Your task to perform on an android device: turn on improve location accuracy Image 0: 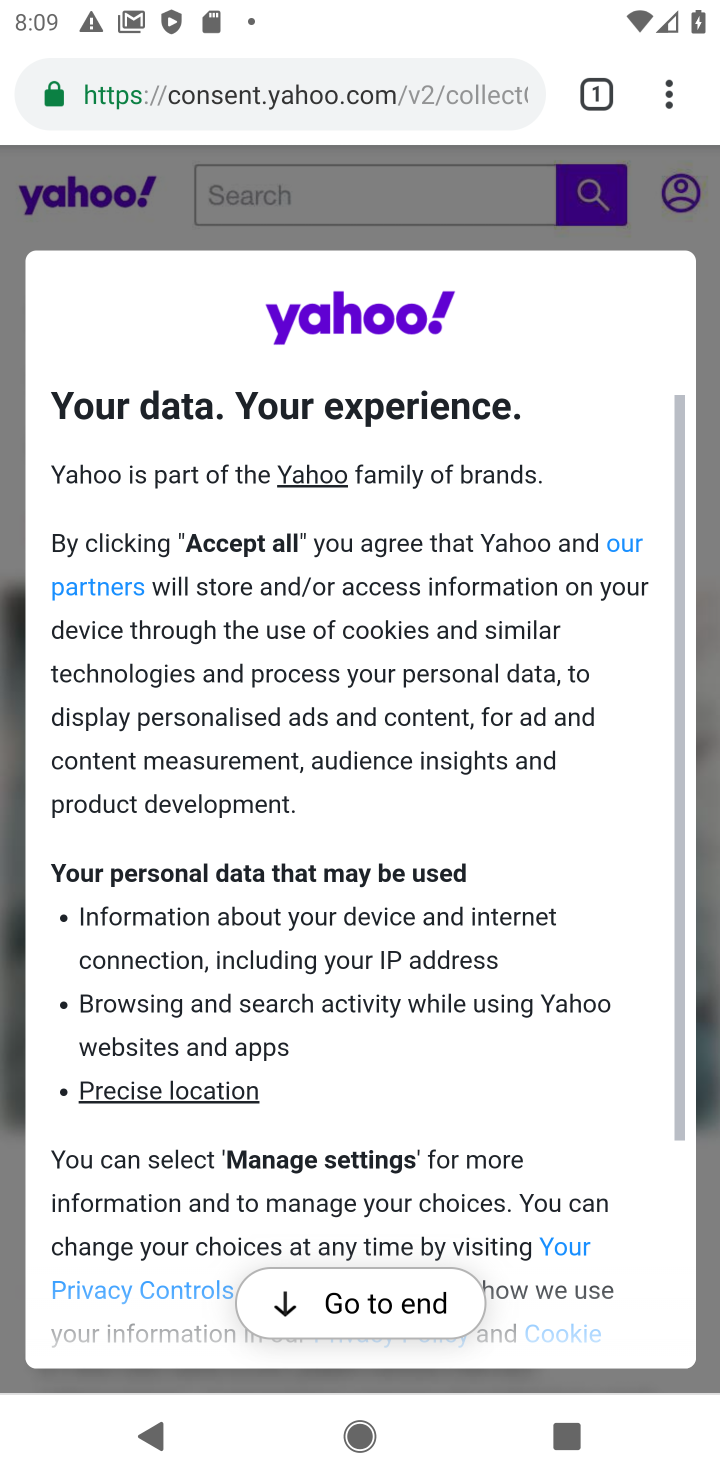
Step 0: press home button
Your task to perform on an android device: turn on improve location accuracy Image 1: 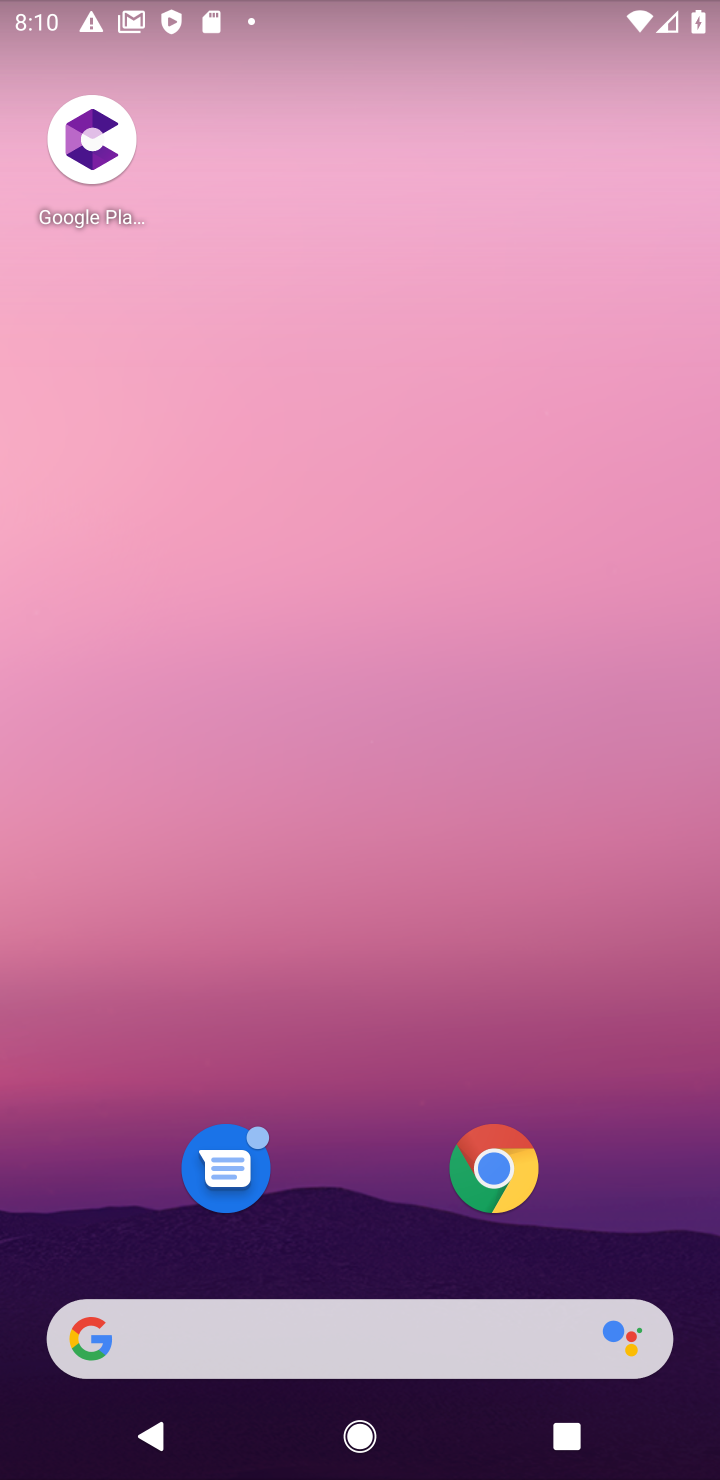
Step 1: drag from (446, 1260) to (718, 1061)
Your task to perform on an android device: turn on improve location accuracy Image 2: 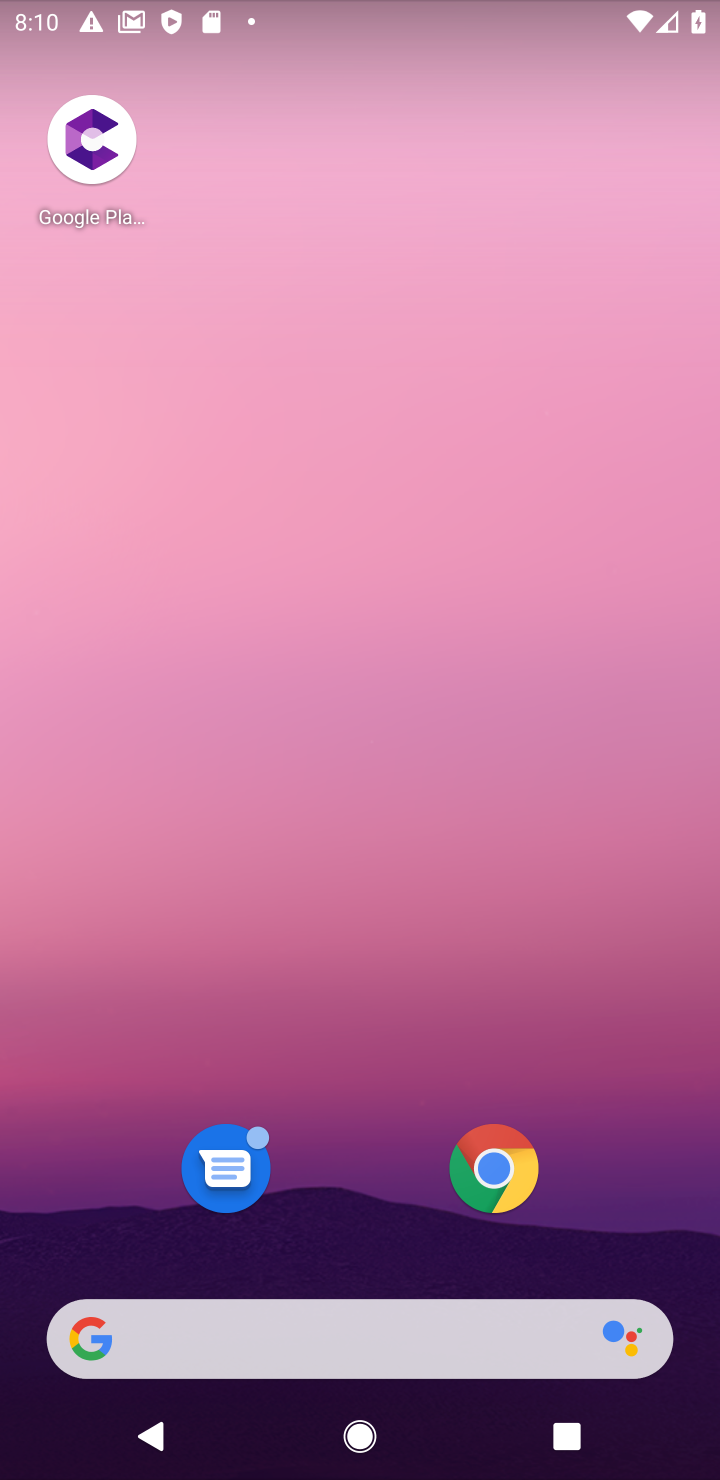
Step 2: drag from (417, 1254) to (586, 30)
Your task to perform on an android device: turn on improve location accuracy Image 3: 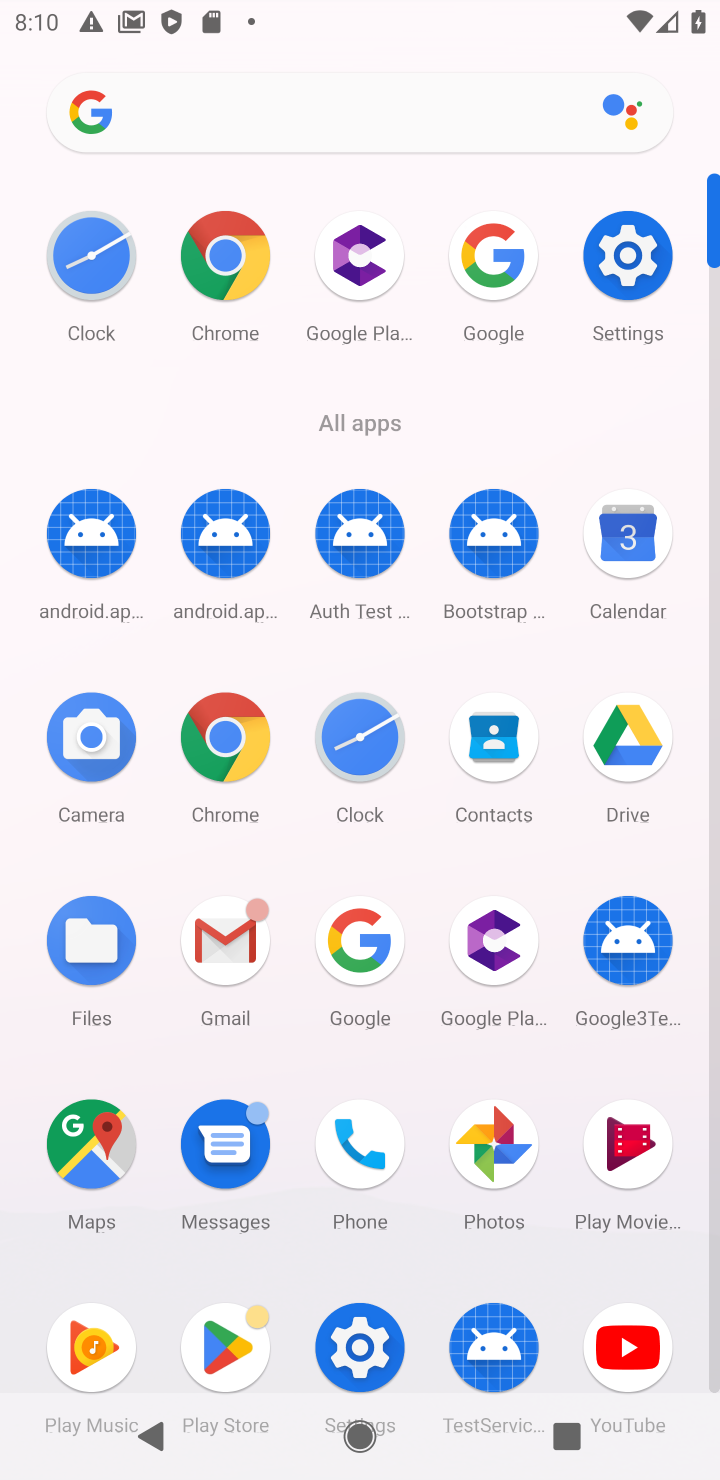
Step 3: click (374, 1320)
Your task to perform on an android device: turn on improve location accuracy Image 4: 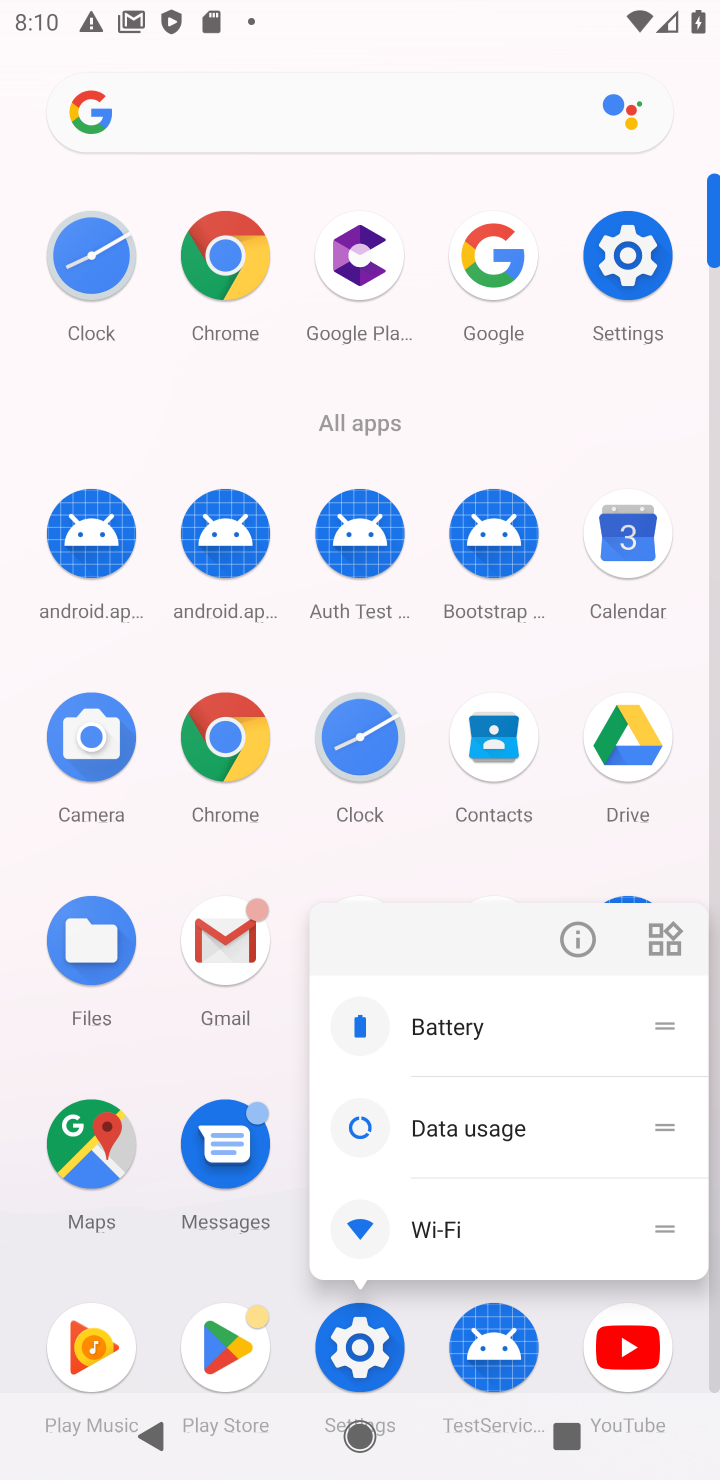
Step 4: click (358, 1342)
Your task to perform on an android device: turn on improve location accuracy Image 5: 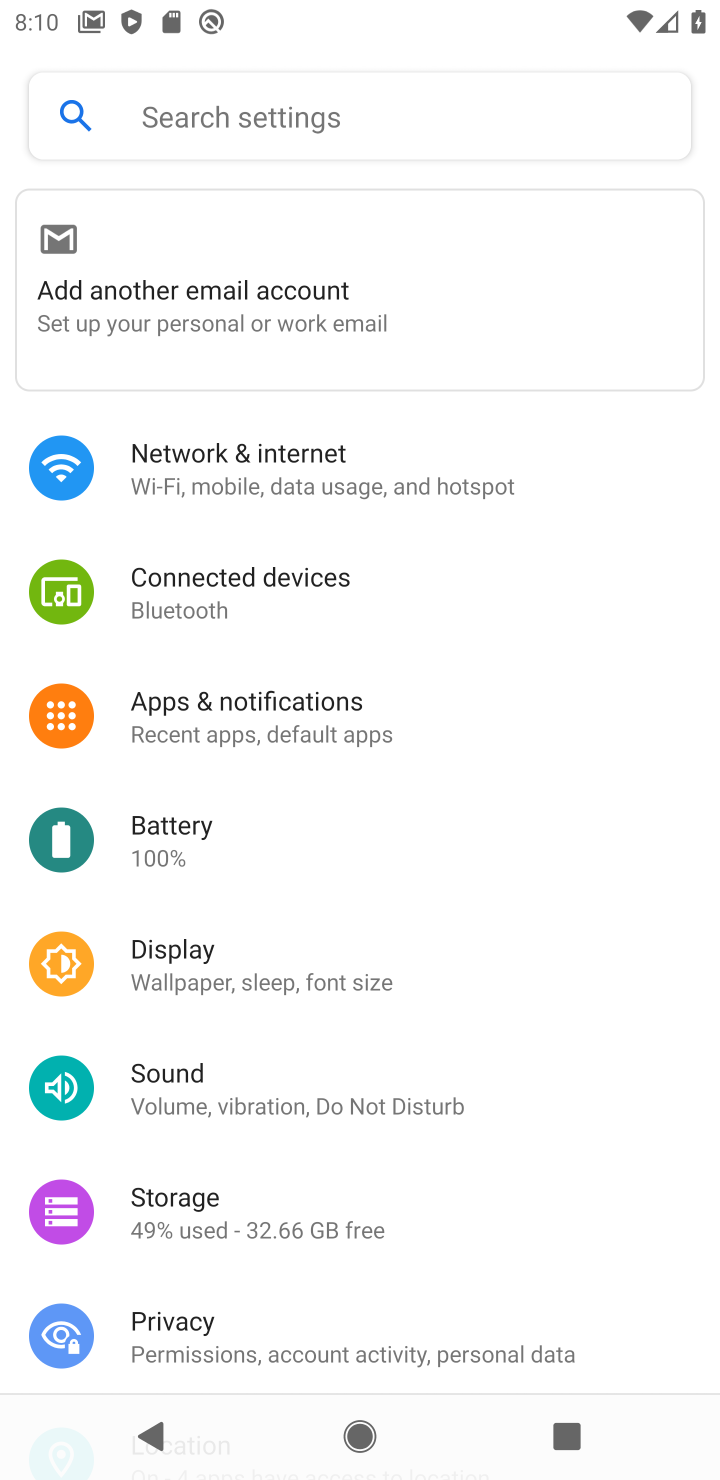
Step 5: drag from (227, 1307) to (200, 104)
Your task to perform on an android device: turn on improve location accuracy Image 6: 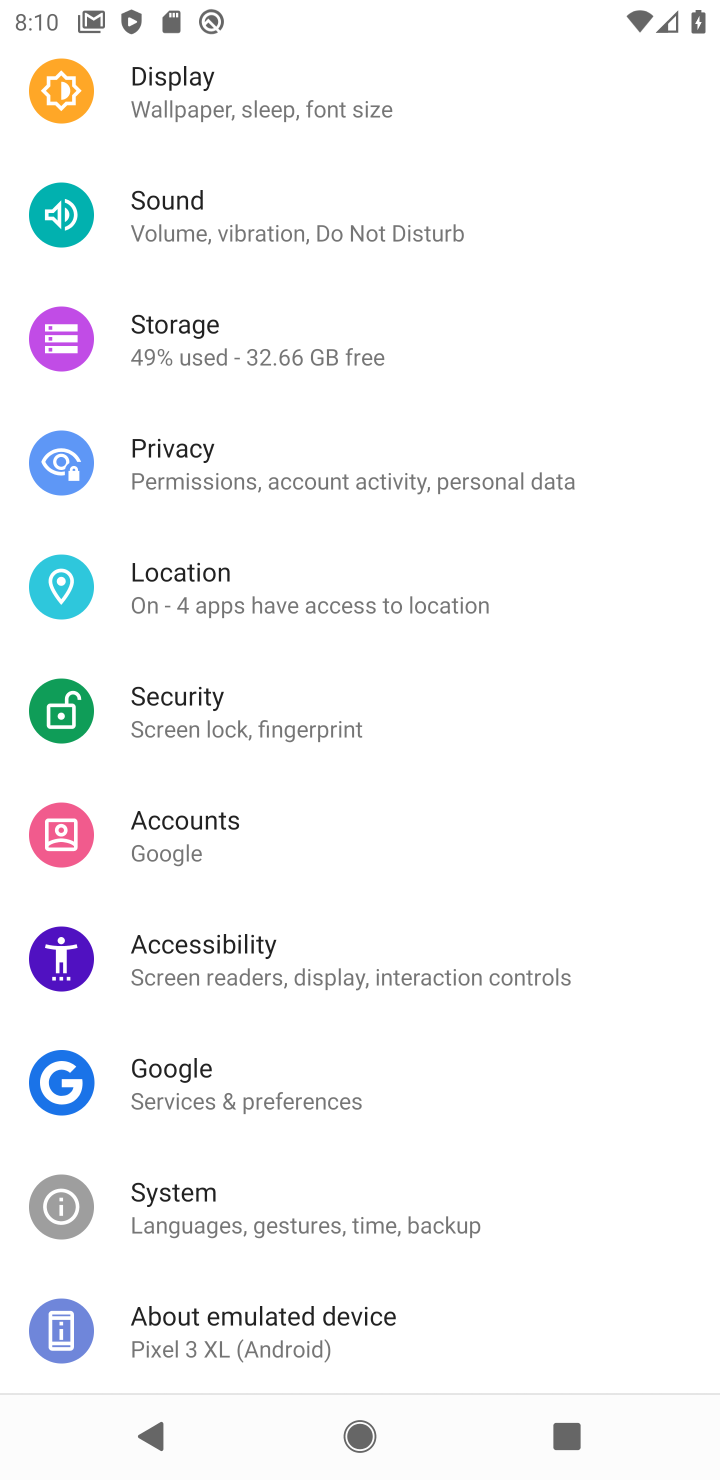
Step 6: click (146, 597)
Your task to perform on an android device: turn on improve location accuracy Image 7: 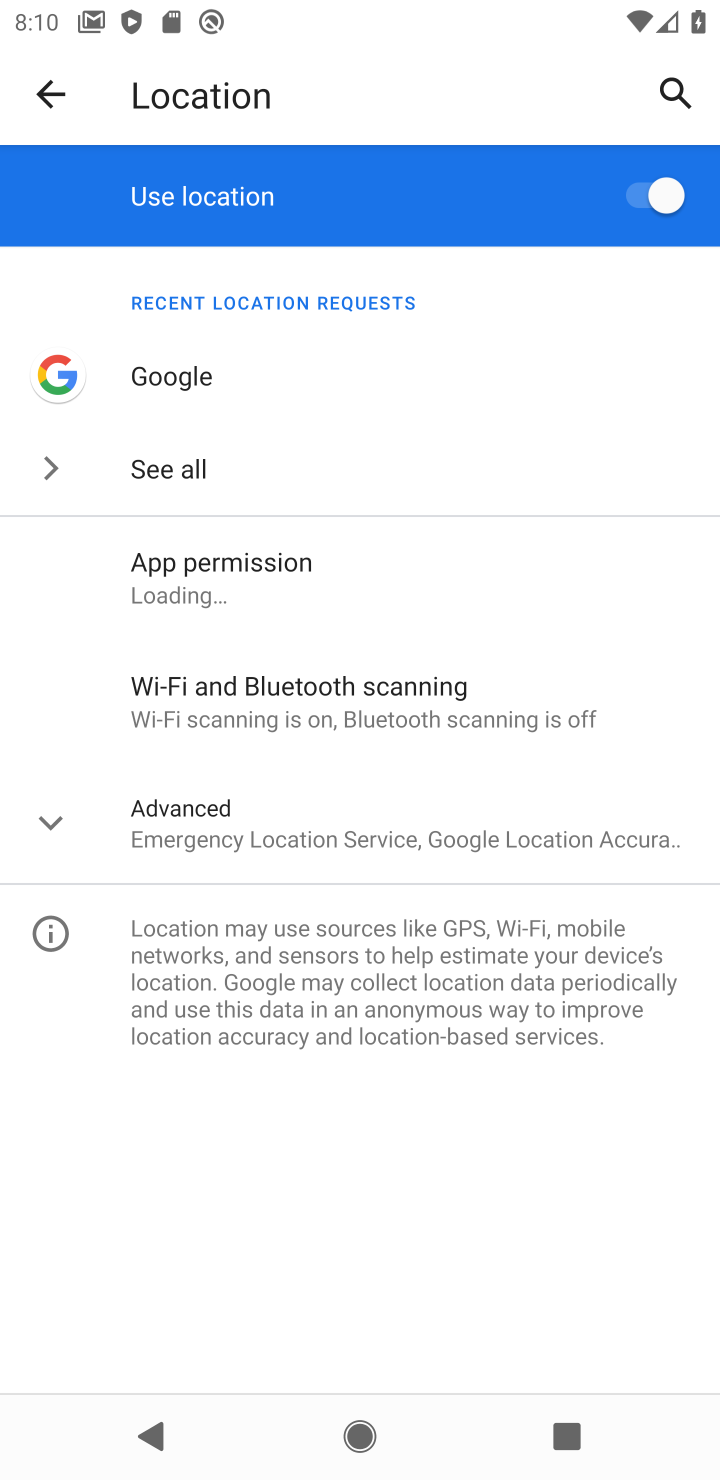
Step 7: click (233, 826)
Your task to perform on an android device: turn on improve location accuracy Image 8: 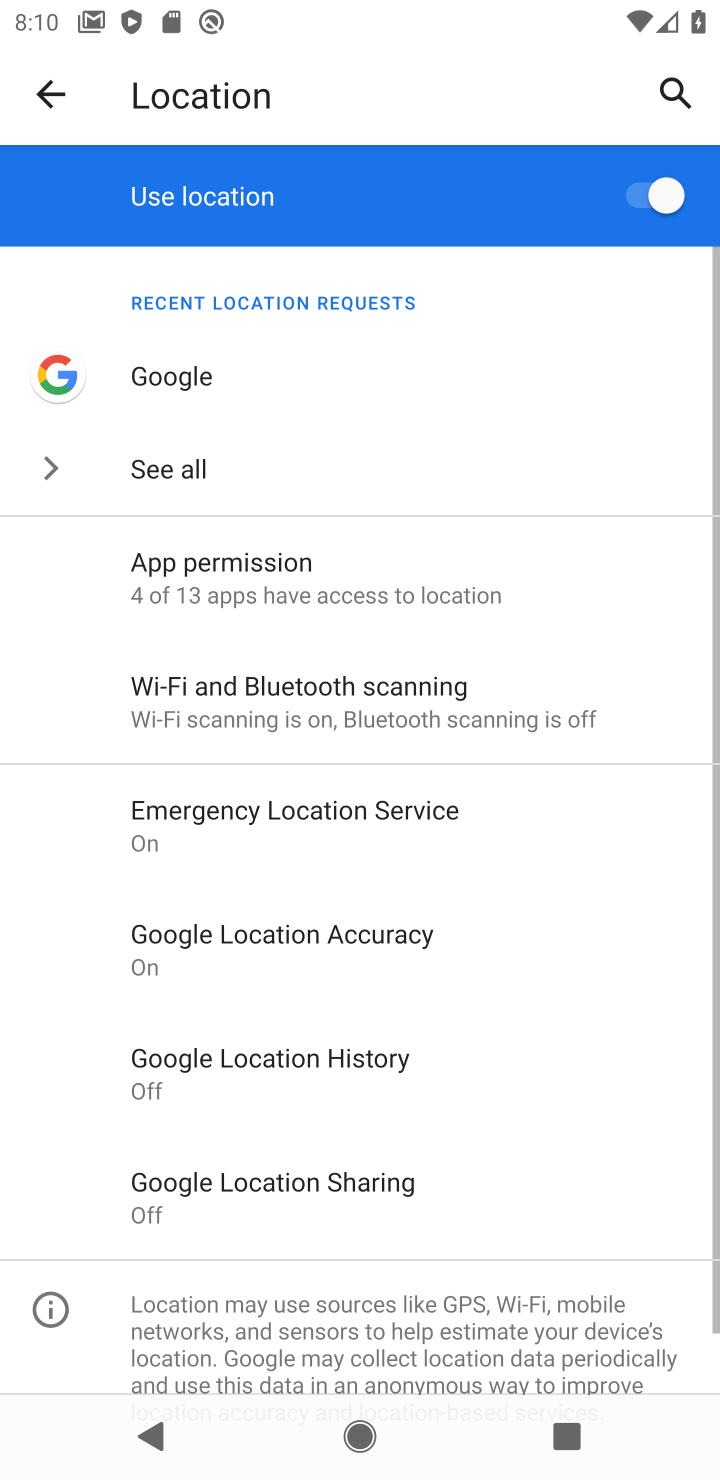
Step 8: click (333, 955)
Your task to perform on an android device: turn on improve location accuracy Image 9: 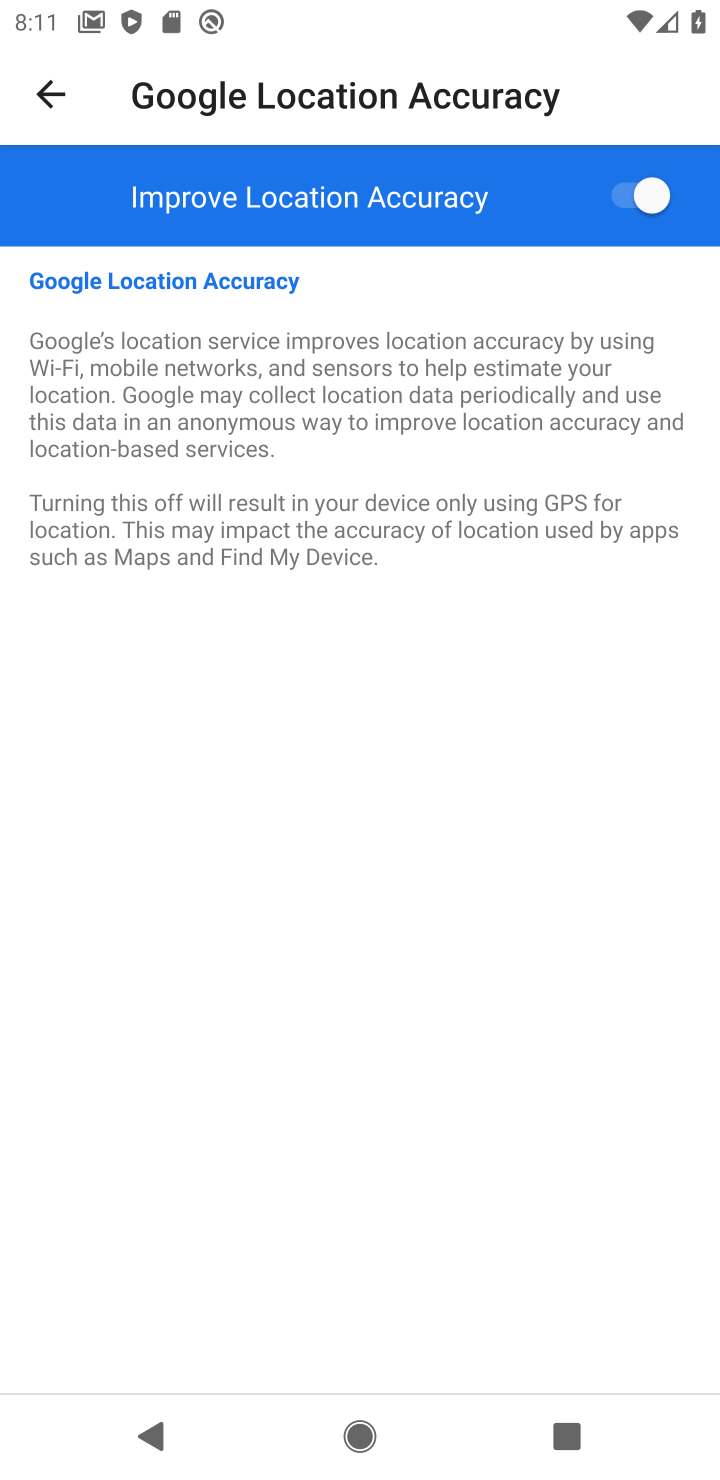
Step 9: task complete